Your task to perform on an android device: Open the map Image 0: 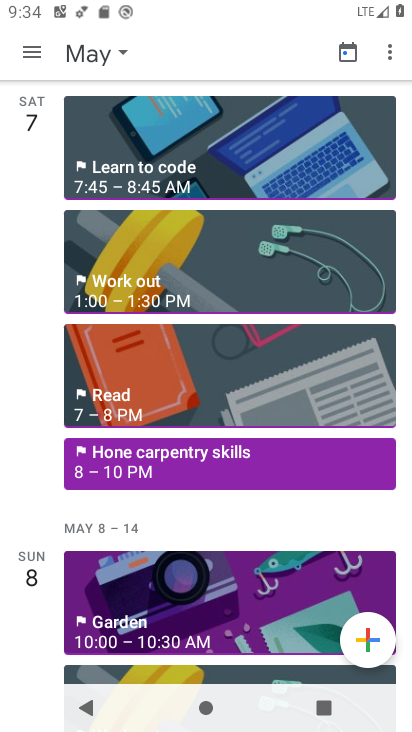
Step 0: press home button
Your task to perform on an android device: Open the map Image 1: 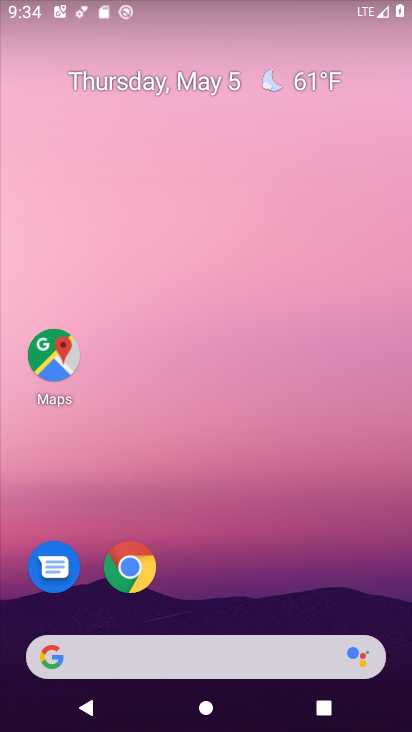
Step 1: click (60, 355)
Your task to perform on an android device: Open the map Image 2: 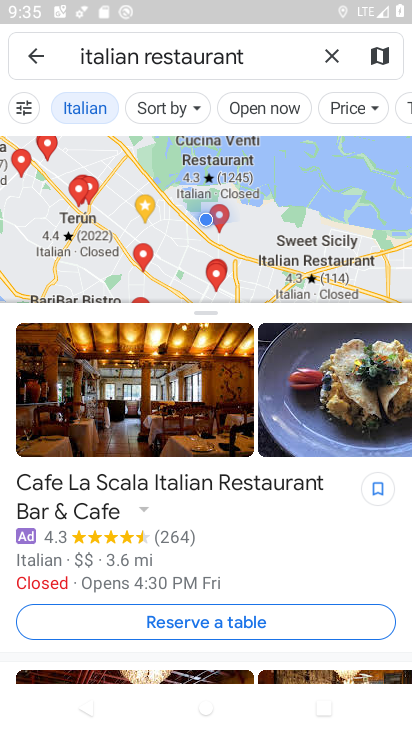
Step 2: task complete